Your task to perform on an android device: What's the weather? Image 0: 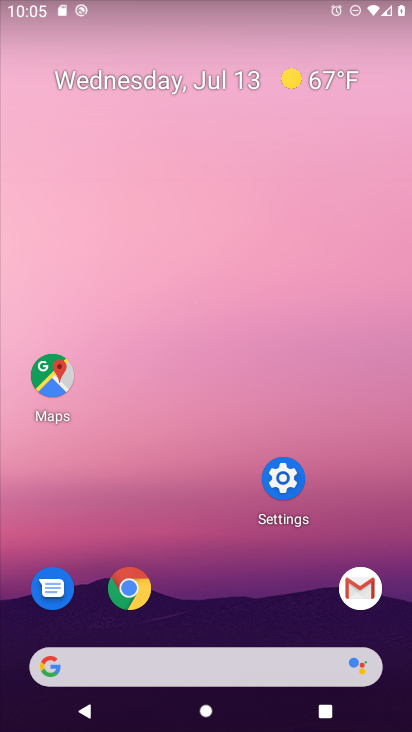
Step 0: click (228, 657)
Your task to perform on an android device: What's the weather? Image 1: 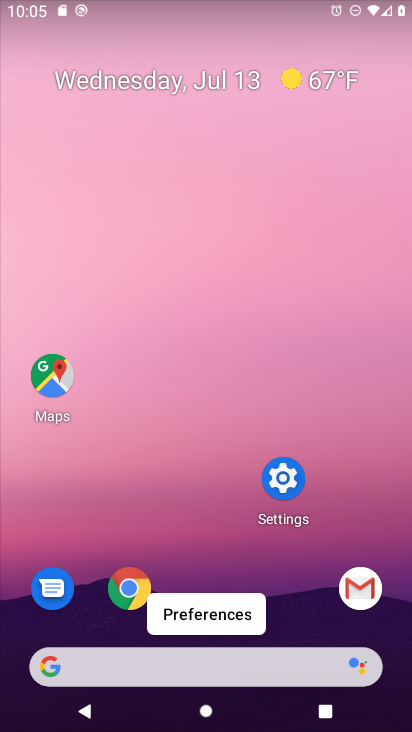
Step 1: click (200, 665)
Your task to perform on an android device: What's the weather? Image 2: 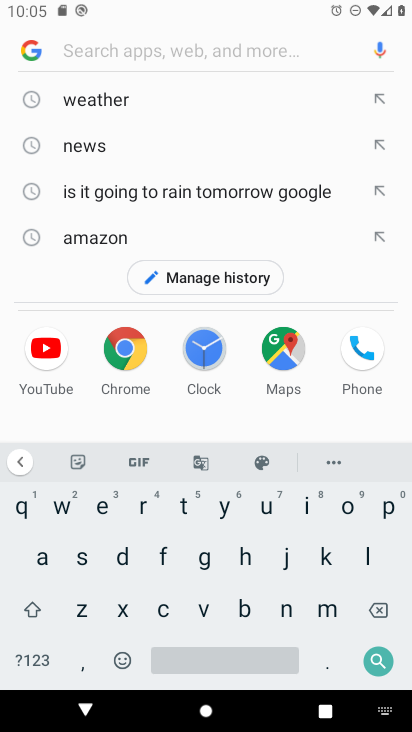
Step 2: click (105, 108)
Your task to perform on an android device: What's the weather? Image 3: 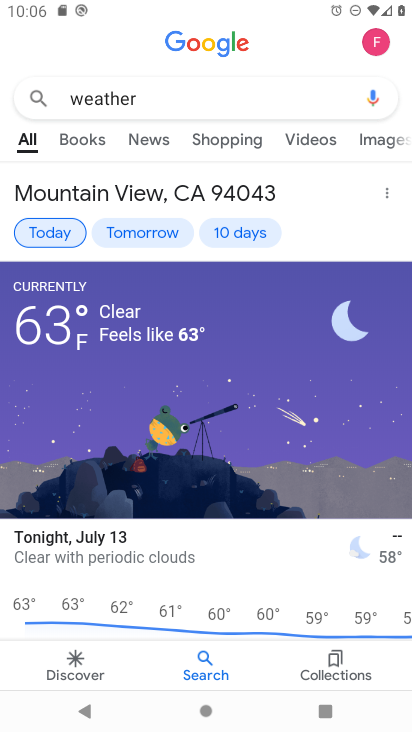
Step 3: task complete